Your task to perform on an android device: Open the stopwatch Image 0: 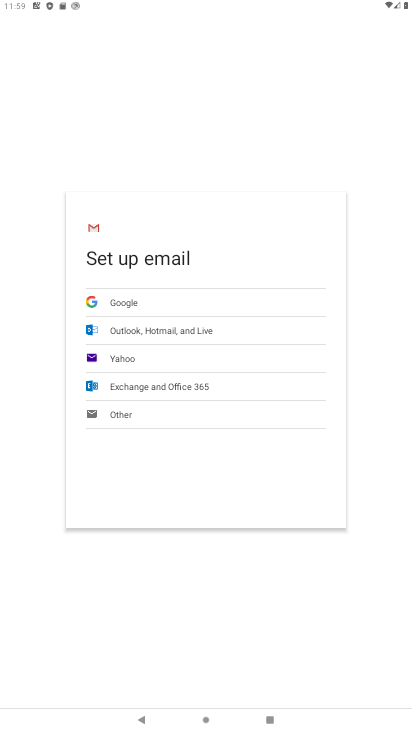
Step 0: press home button
Your task to perform on an android device: Open the stopwatch Image 1: 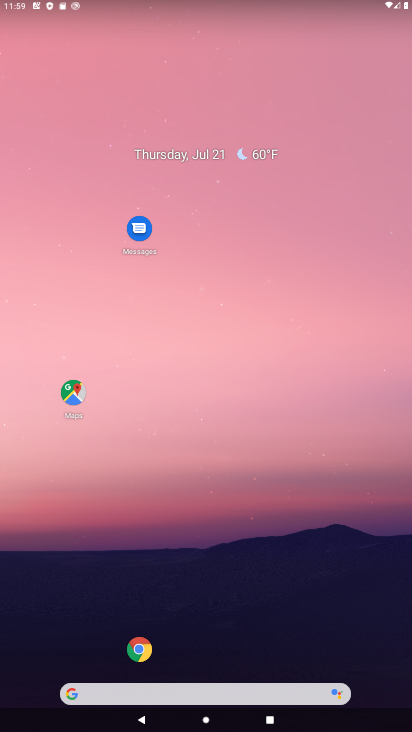
Step 1: drag from (11, 690) to (294, 128)
Your task to perform on an android device: Open the stopwatch Image 2: 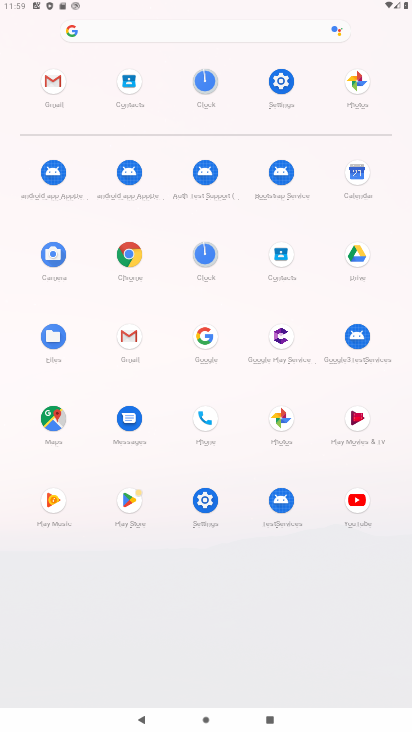
Step 2: click (218, 254)
Your task to perform on an android device: Open the stopwatch Image 3: 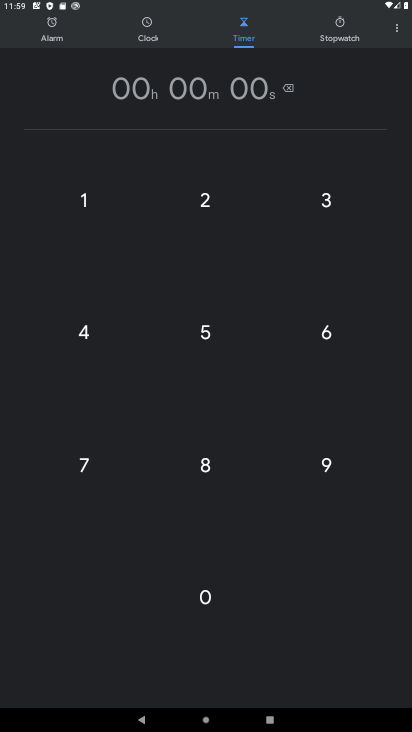
Step 3: click (323, 30)
Your task to perform on an android device: Open the stopwatch Image 4: 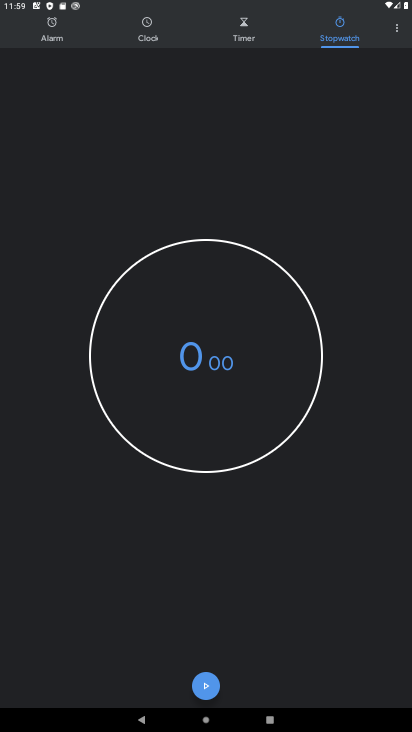
Step 4: task complete